Your task to perform on an android device: check out phone information Image 0: 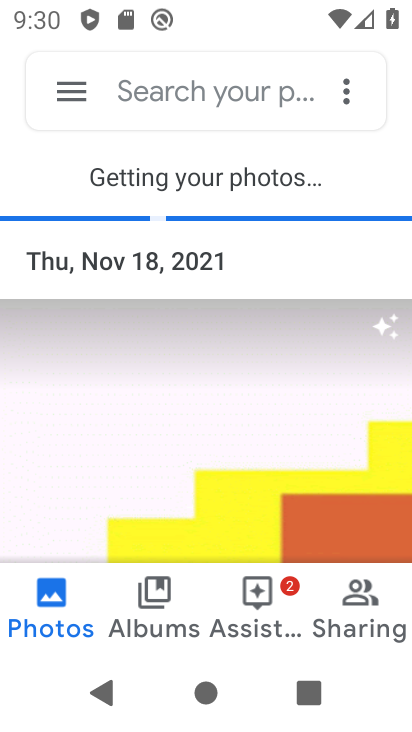
Step 0: press home button
Your task to perform on an android device: check out phone information Image 1: 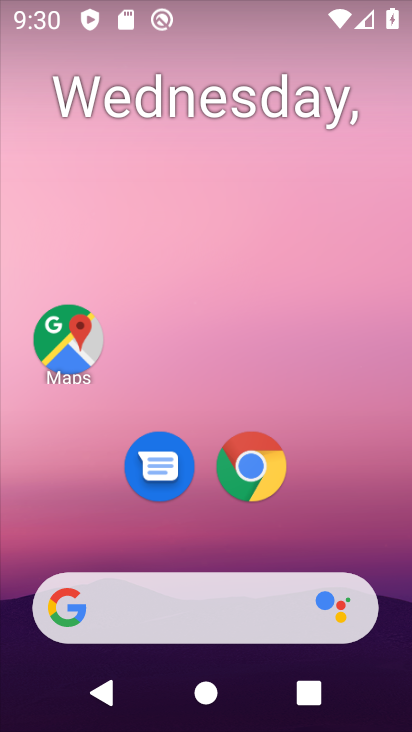
Step 1: drag from (347, 503) to (194, 212)
Your task to perform on an android device: check out phone information Image 2: 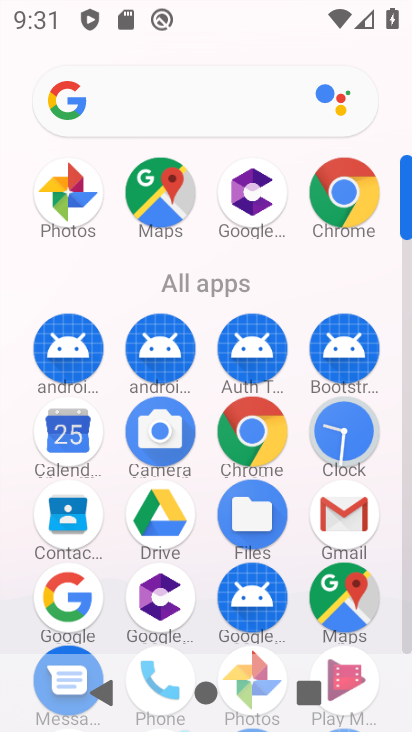
Step 2: drag from (110, 479) to (123, 259)
Your task to perform on an android device: check out phone information Image 3: 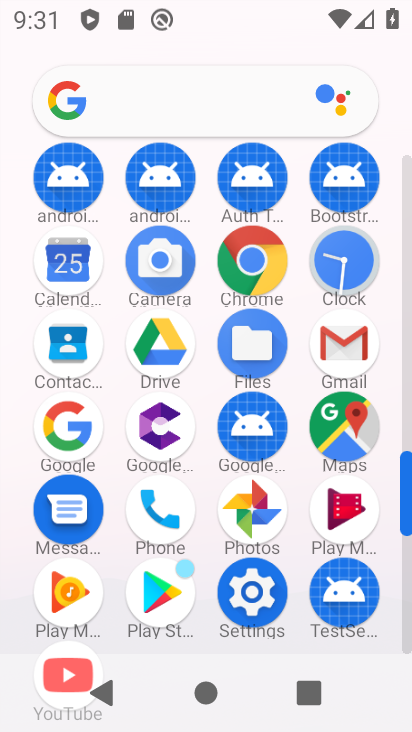
Step 3: click (160, 518)
Your task to perform on an android device: check out phone information Image 4: 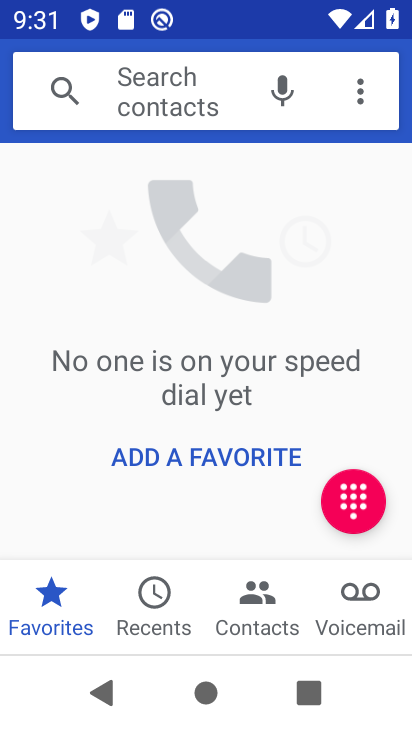
Step 4: click (366, 85)
Your task to perform on an android device: check out phone information Image 5: 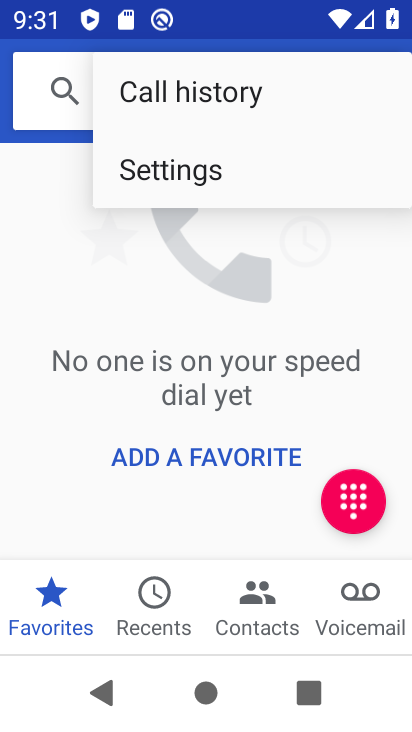
Step 5: click (193, 171)
Your task to perform on an android device: check out phone information Image 6: 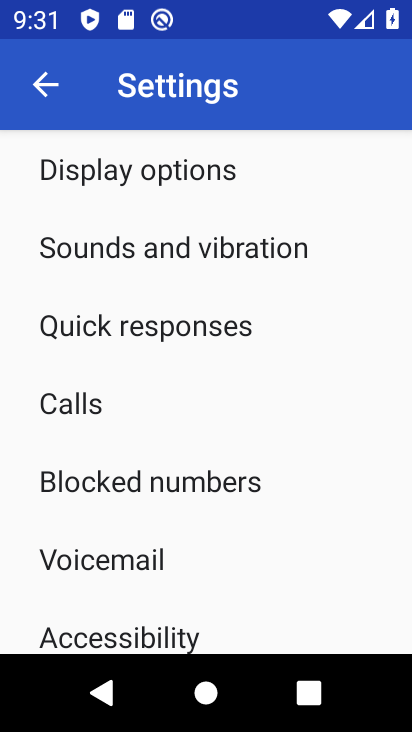
Step 6: drag from (279, 565) to (275, 191)
Your task to perform on an android device: check out phone information Image 7: 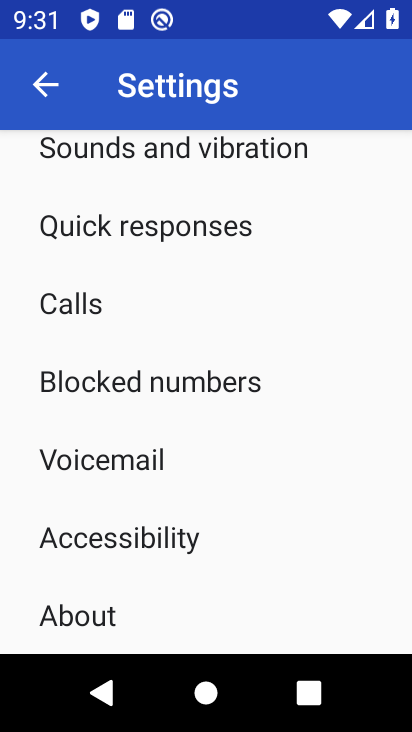
Step 7: click (54, 617)
Your task to perform on an android device: check out phone information Image 8: 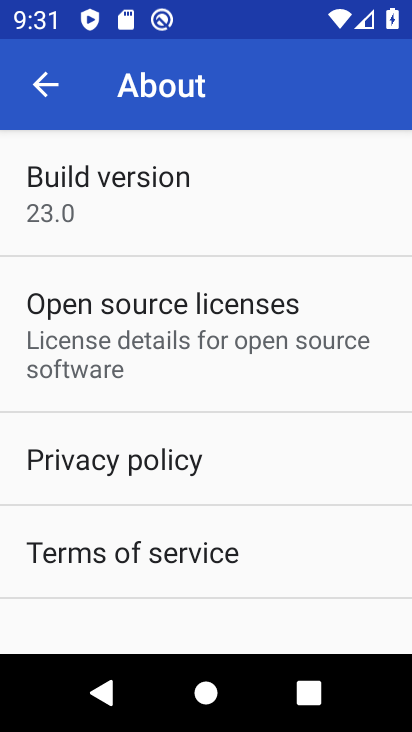
Step 8: task complete